Your task to perform on an android device: Open Chrome and go to the settings page Image 0: 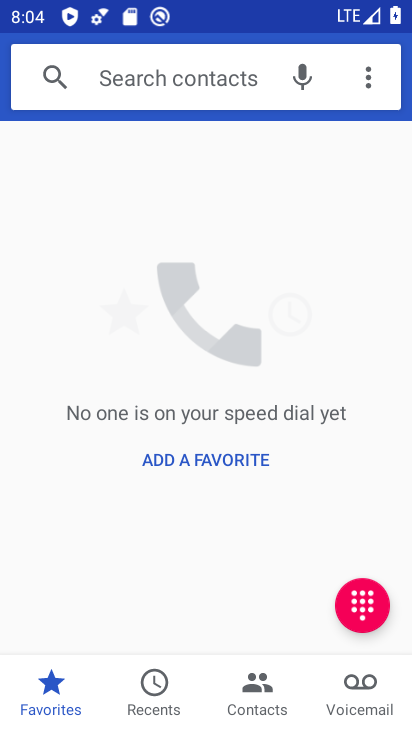
Step 0: press home button
Your task to perform on an android device: Open Chrome and go to the settings page Image 1: 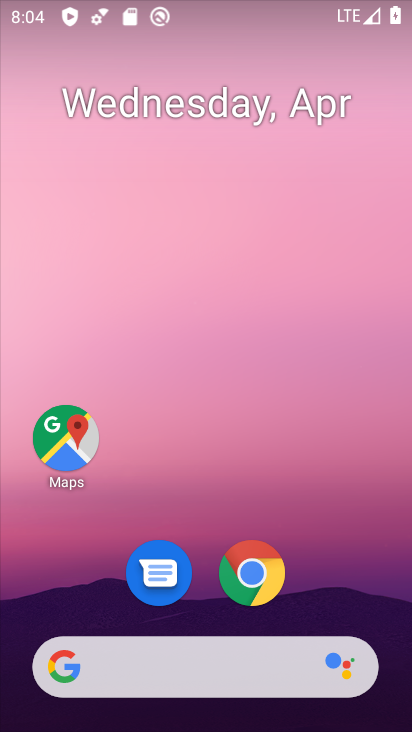
Step 1: click (259, 564)
Your task to perform on an android device: Open Chrome and go to the settings page Image 2: 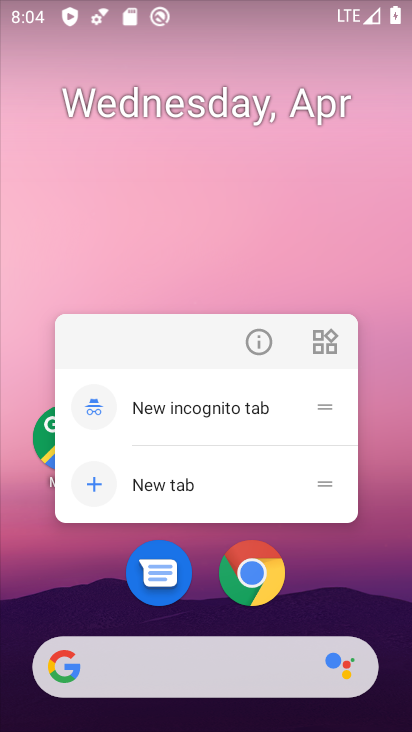
Step 2: click (264, 335)
Your task to perform on an android device: Open Chrome and go to the settings page Image 3: 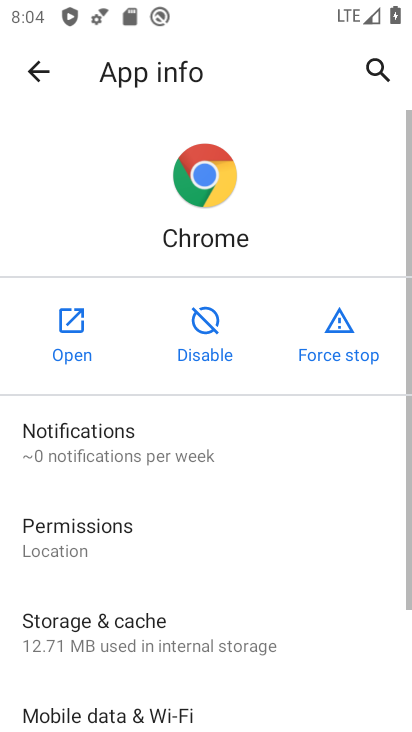
Step 3: click (76, 316)
Your task to perform on an android device: Open Chrome and go to the settings page Image 4: 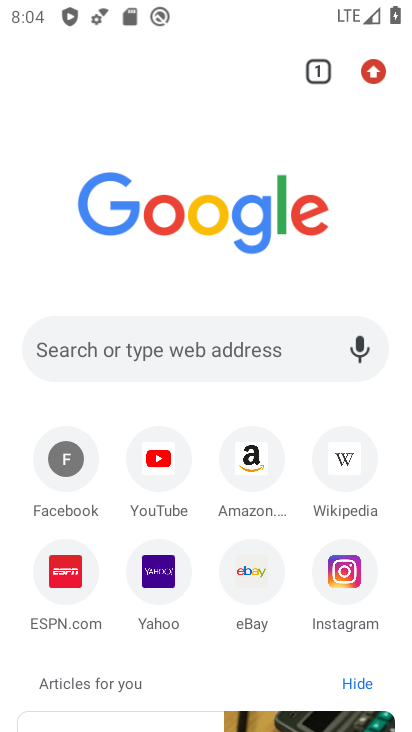
Step 4: drag from (221, 55) to (221, 192)
Your task to perform on an android device: Open Chrome and go to the settings page Image 5: 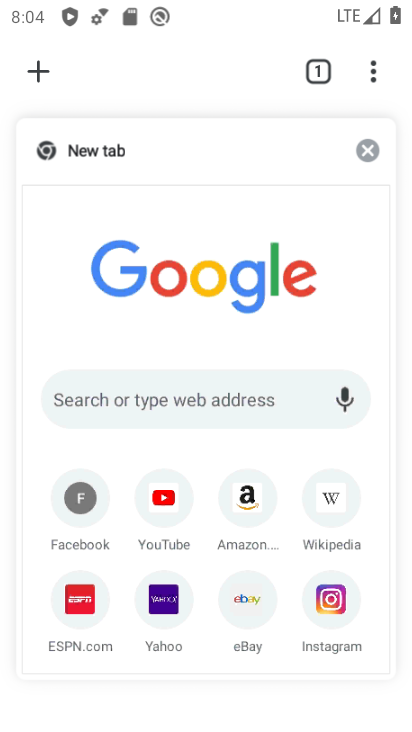
Step 5: click (222, 207)
Your task to perform on an android device: Open Chrome and go to the settings page Image 6: 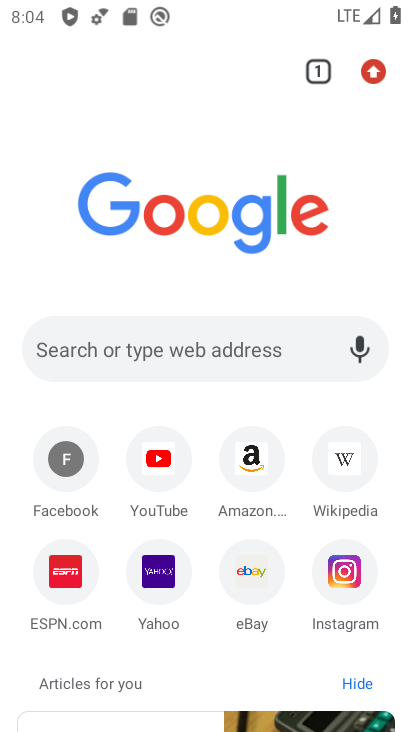
Step 6: drag from (301, 113) to (301, 160)
Your task to perform on an android device: Open Chrome and go to the settings page Image 7: 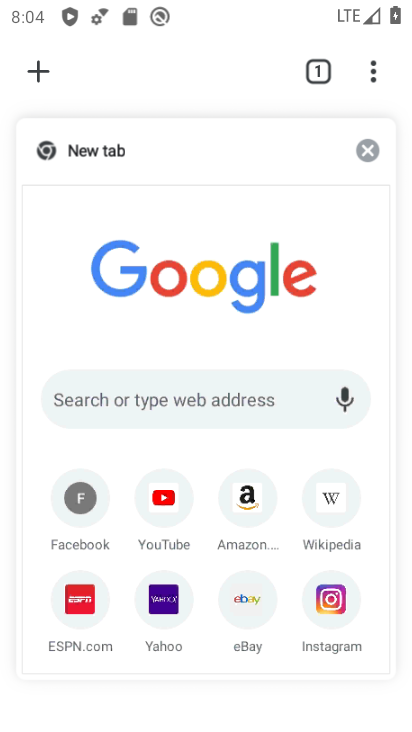
Step 7: click (368, 85)
Your task to perform on an android device: Open Chrome and go to the settings page Image 8: 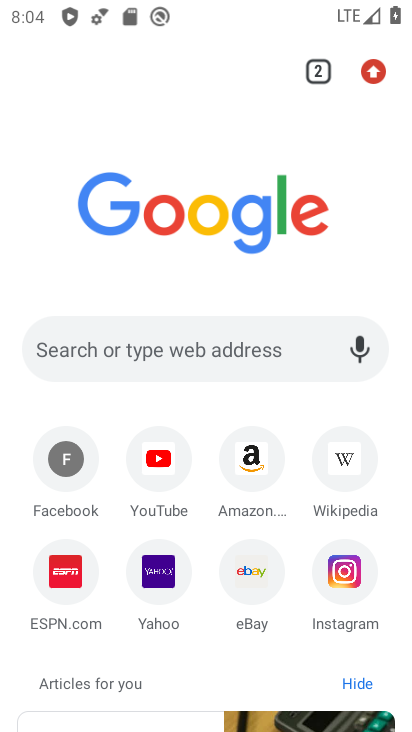
Step 8: click (321, 67)
Your task to perform on an android device: Open Chrome and go to the settings page Image 9: 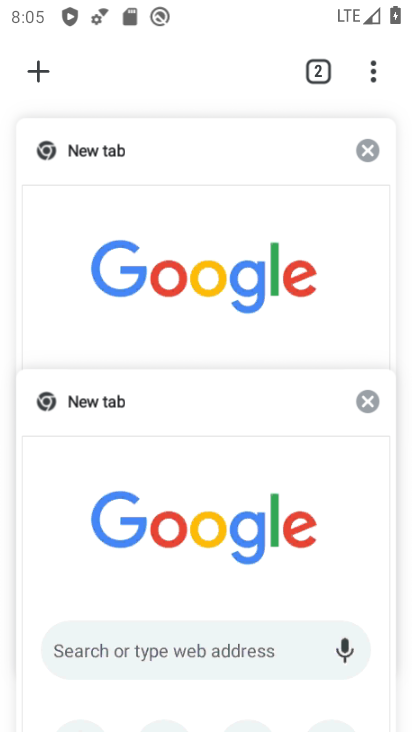
Step 9: click (371, 148)
Your task to perform on an android device: Open Chrome and go to the settings page Image 10: 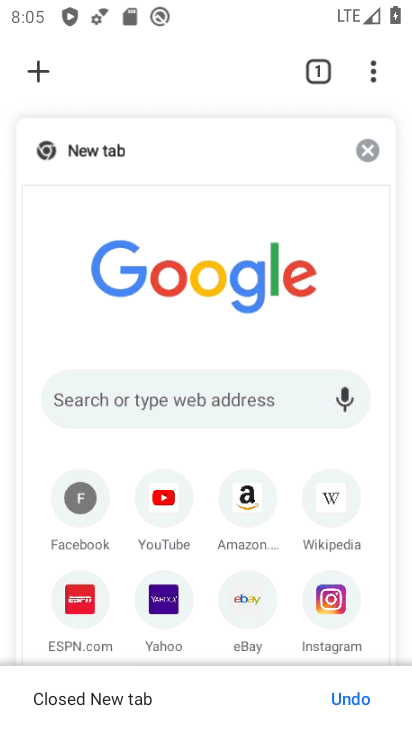
Step 10: click (342, 220)
Your task to perform on an android device: Open Chrome and go to the settings page Image 11: 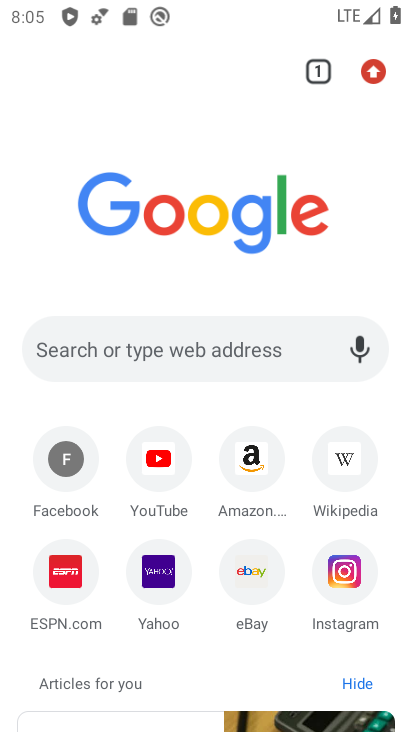
Step 11: click (357, 82)
Your task to perform on an android device: Open Chrome and go to the settings page Image 12: 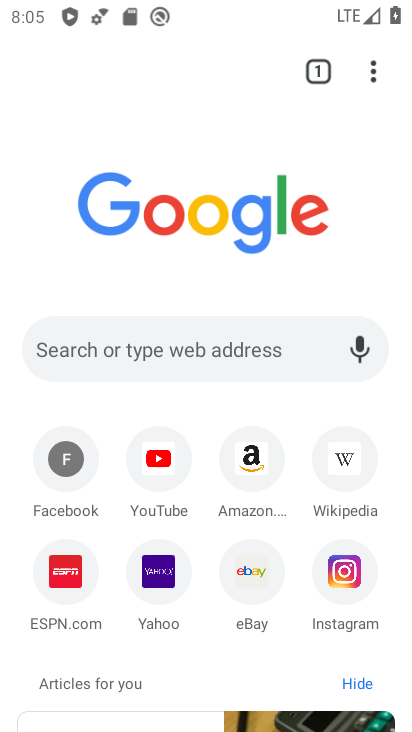
Step 12: click (369, 72)
Your task to perform on an android device: Open Chrome and go to the settings page Image 13: 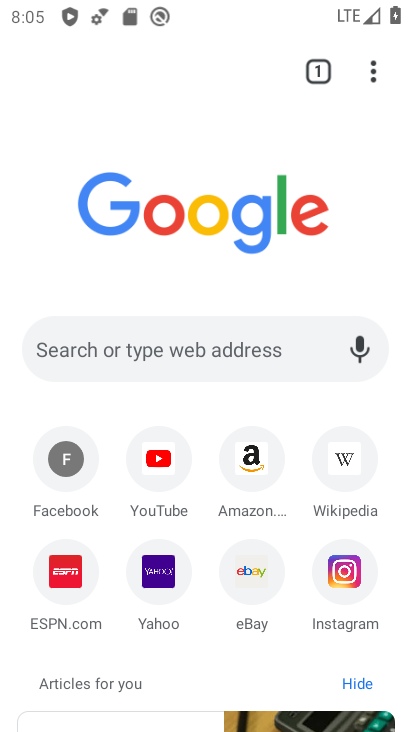
Step 13: click (370, 71)
Your task to perform on an android device: Open Chrome and go to the settings page Image 14: 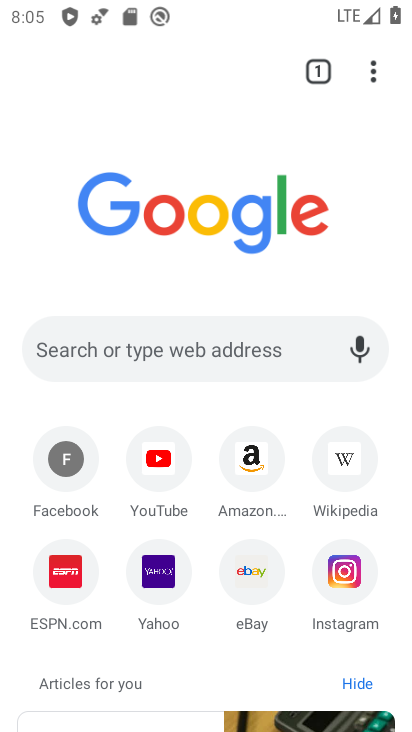
Step 14: drag from (392, 81) to (361, 66)
Your task to perform on an android device: Open Chrome and go to the settings page Image 15: 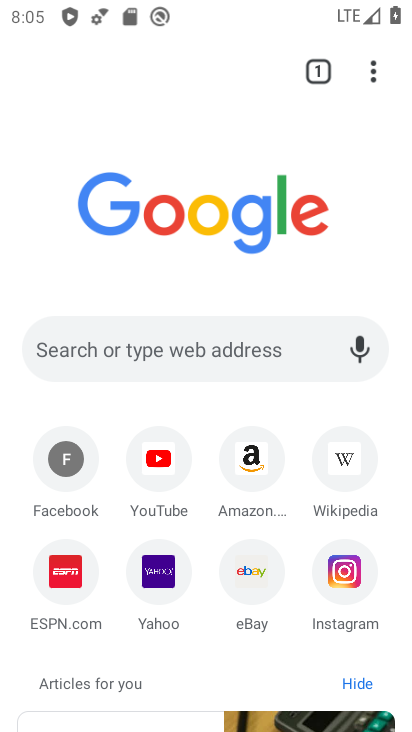
Step 15: drag from (392, 81) to (363, 63)
Your task to perform on an android device: Open Chrome and go to the settings page Image 16: 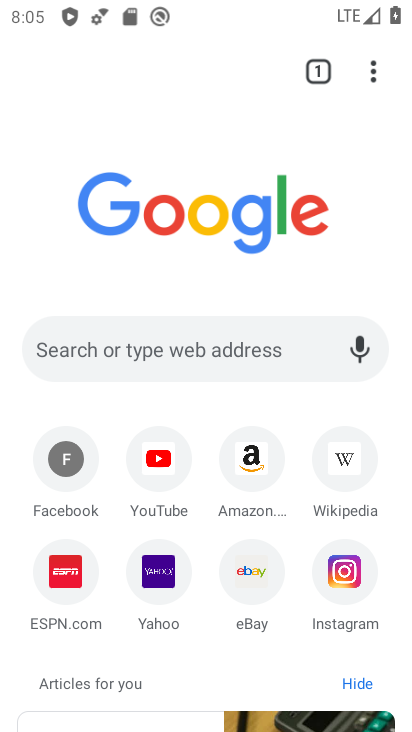
Step 16: click (366, 58)
Your task to perform on an android device: Open Chrome and go to the settings page Image 17: 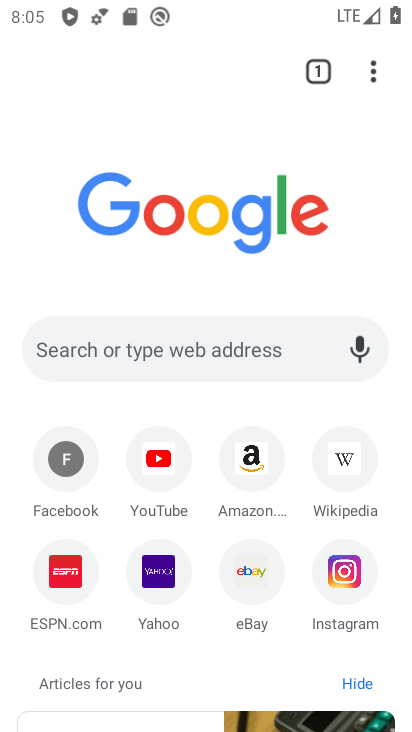
Step 17: click (366, 58)
Your task to perform on an android device: Open Chrome and go to the settings page Image 18: 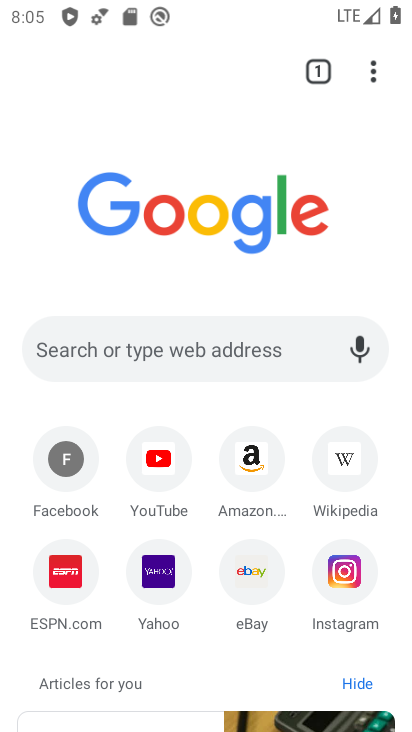
Step 18: click (366, 58)
Your task to perform on an android device: Open Chrome and go to the settings page Image 19: 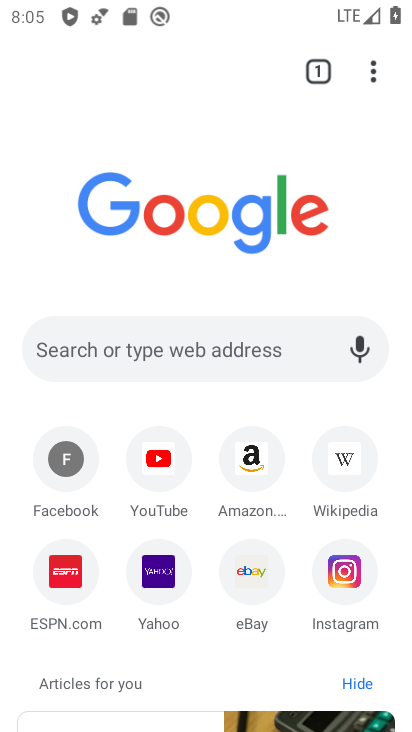
Step 19: click (366, 58)
Your task to perform on an android device: Open Chrome and go to the settings page Image 20: 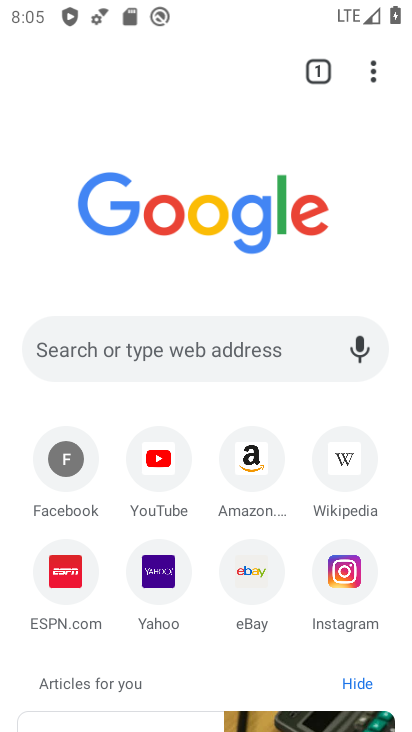
Step 20: click (366, 58)
Your task to perform on an android device: Open Chrome and go to the settings page Image 21: 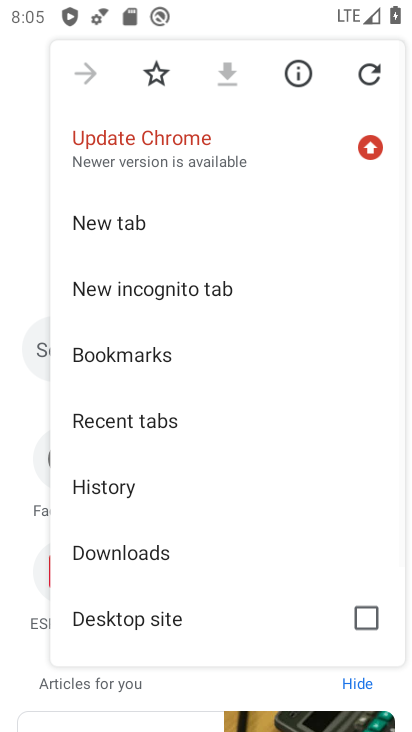
Step 21: drag from (319, 305) to (409, 258)
Your task to perform on an android device: Open Chrome and go to the settings page Image 22: 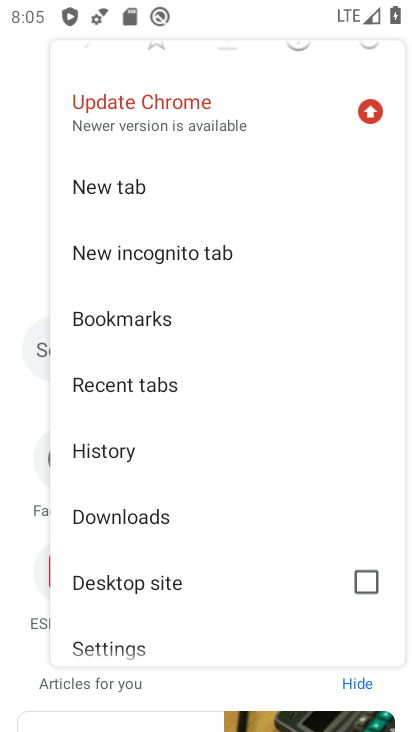
Step 22: click (170, 638)
Your task to perform on an android device: Open Chrome and go to the settings page Image 23: 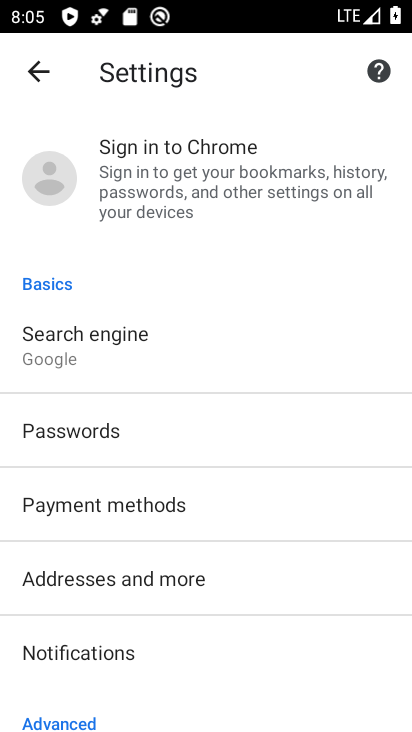
Step 23: task complete